Your task to perform on an android device: all mails in gmail Image 0: 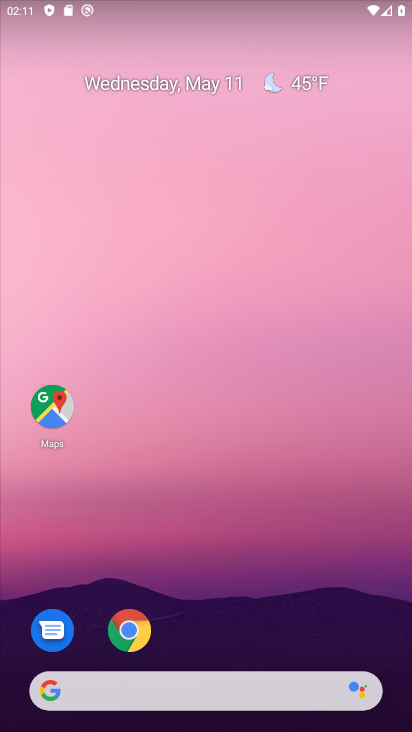
Step 0: drag from (204, 718) to (206, 181)
Your task to perform on an android device: all mails in gmail Image 1: 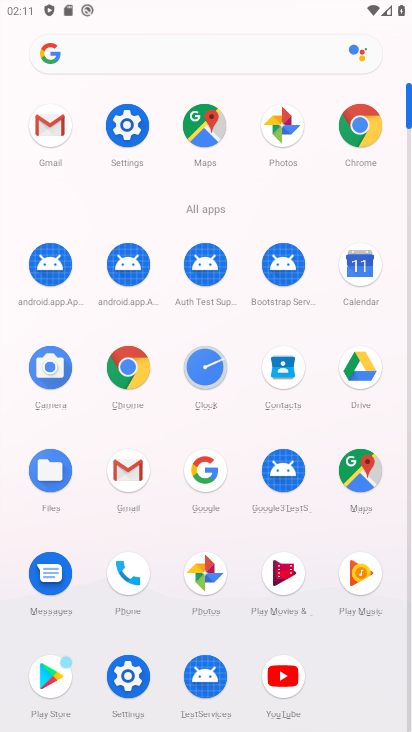
Step 1: click (138, 470)
Your task to perform on an android device: all mails in gmail Image 2: 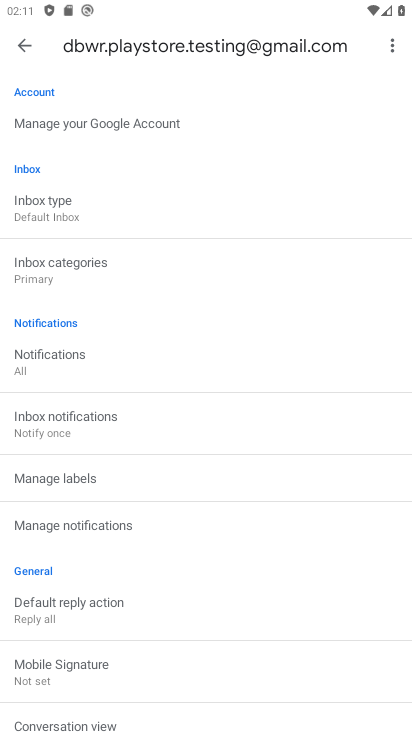
Step 2: click (26, 49)
Your task to perform on an android device: all mails in gmail Image 3: 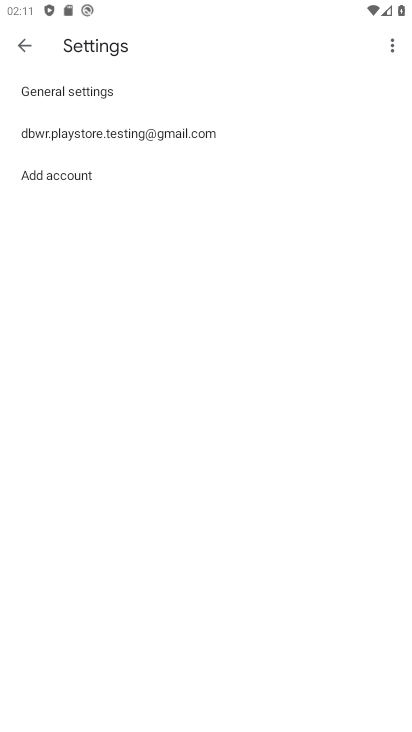
Step 3: click (25, 45)
Your task to perform on an android device: all mails in gmail Image 4: 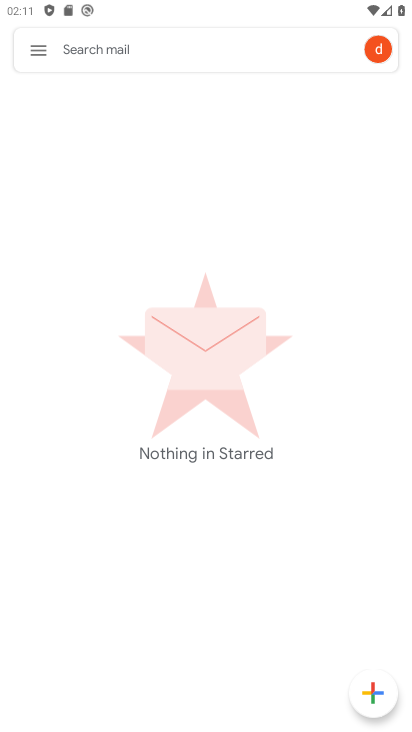
Step 4: click (33, 49)
Your task to perform on an android device: all mails in gmail Image 5: 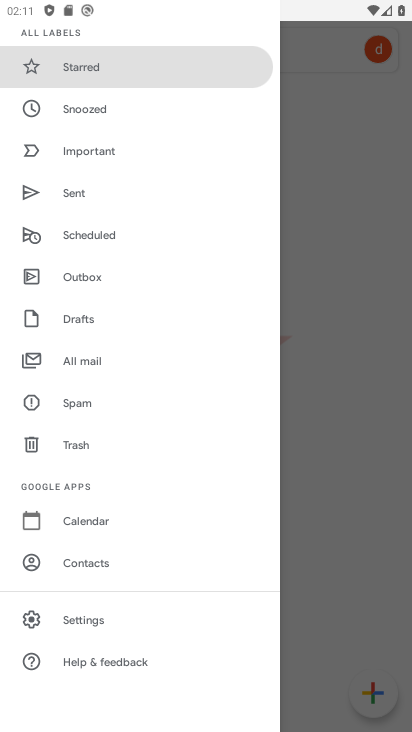
Step 5: click (92, 357)
Your task to perform on an android device: all mails in gmail Image 6: 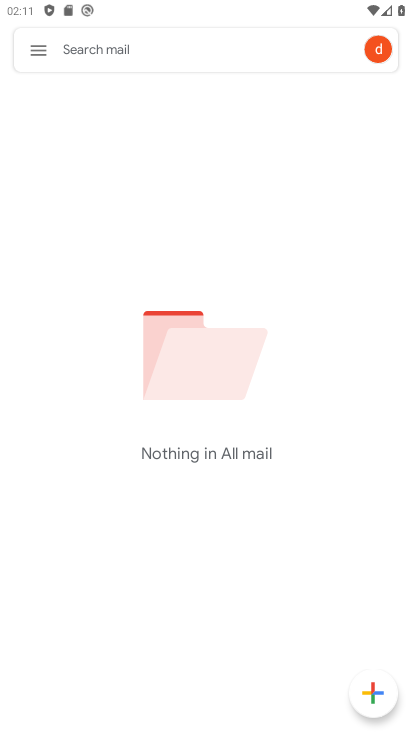
Step 6: task complete